Your task to perform on an android device: Is it going to rain this weekend? Image 0: 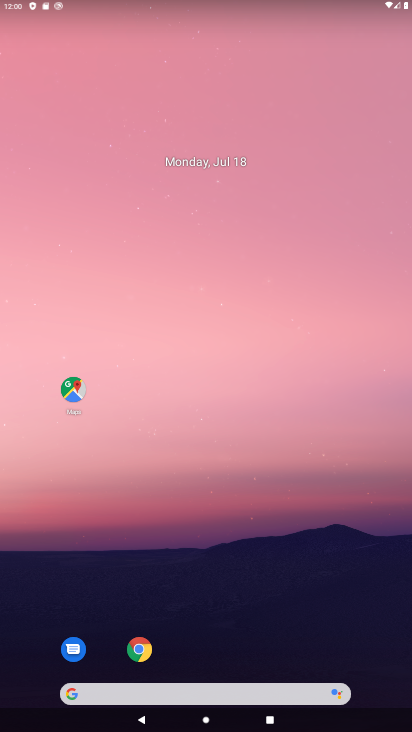
Step 0: click (116, 689)
Your task to perform on an android device: Is it going to rain this weekend? Image 1: 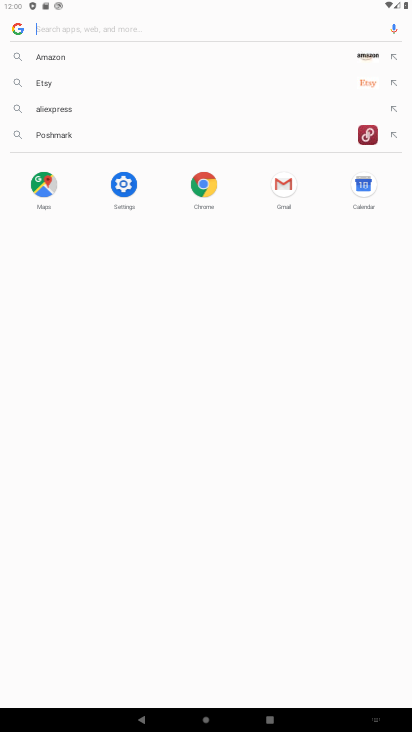
Step 1: type "Is it going to rain this weekend?"
Your task to perform on an android device: Is it going to rain this weekend? Image 2: 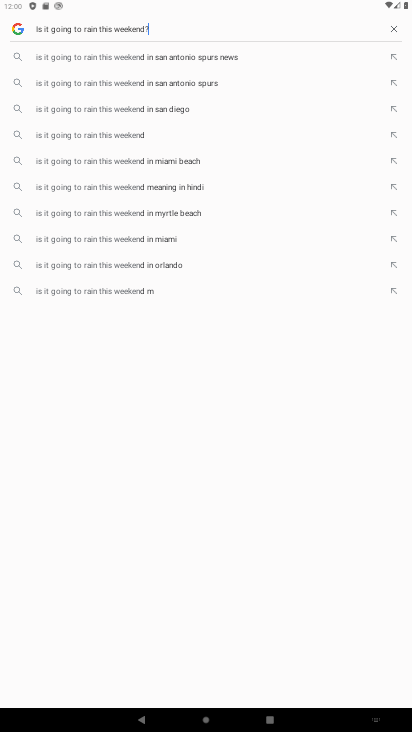
Step 2: type ""
Your task to perform on an android device: Is it going to rain this weekend? Image 3: 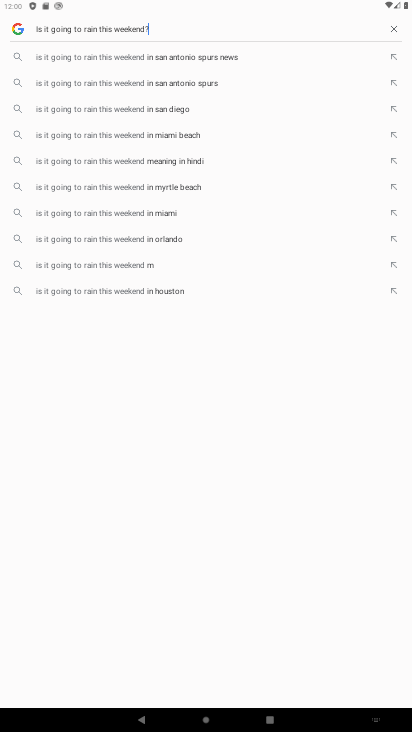
Step 3: type ""
Your task to perform on an android device: Is it going to rain this weekend? Image 4: 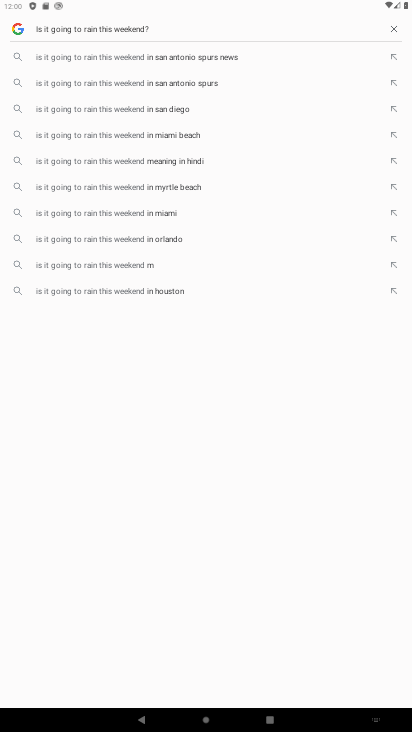
Step 4: type ""
Your task to perform on an android device: Is it going to rain this weekend? Image 5: 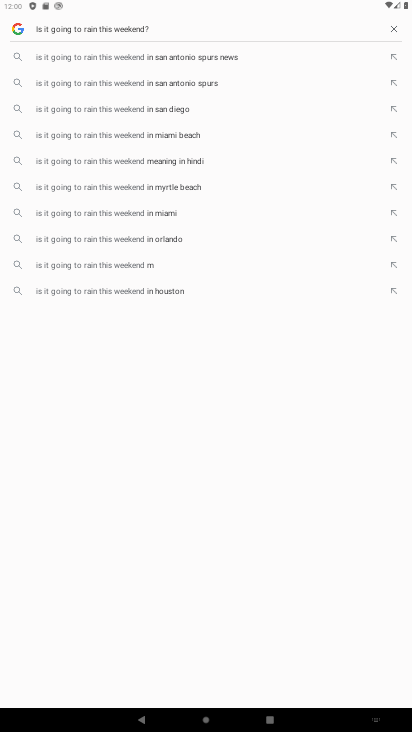
Step 5: type ""
Your task to perform on an android device: Is it going to rain this weekend? Image 6: 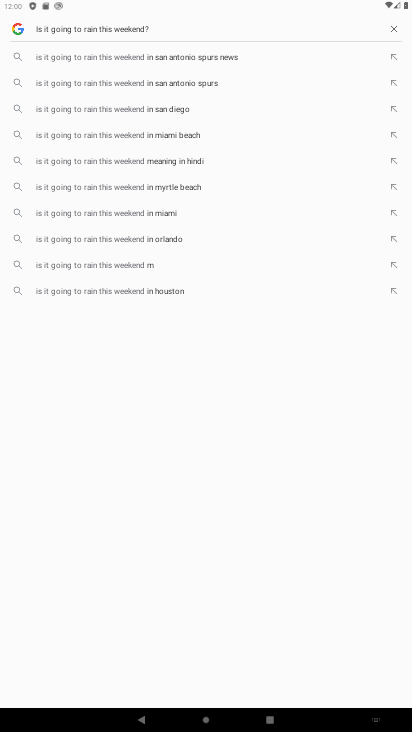
Step 6: task complete